Your task to perform on an android device: turn notification dots on Image 0: 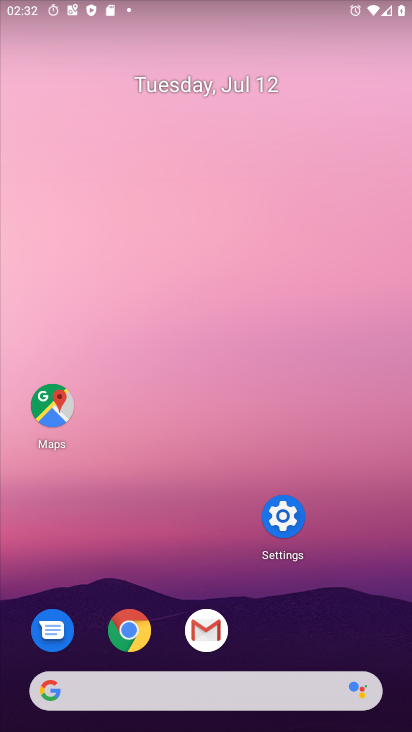
Step 0: click (291, 504)
Your task to perform on an android device: turn notification dots on Image 1: 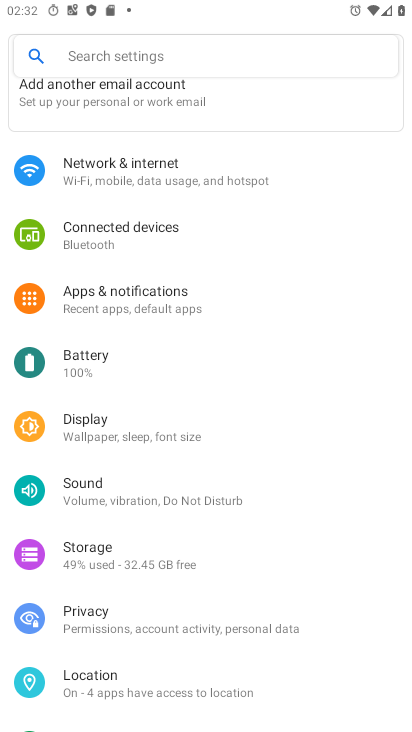
Step 1: click (200, 56)
Your task to perform on an android device: turn notification dots on Image 2: 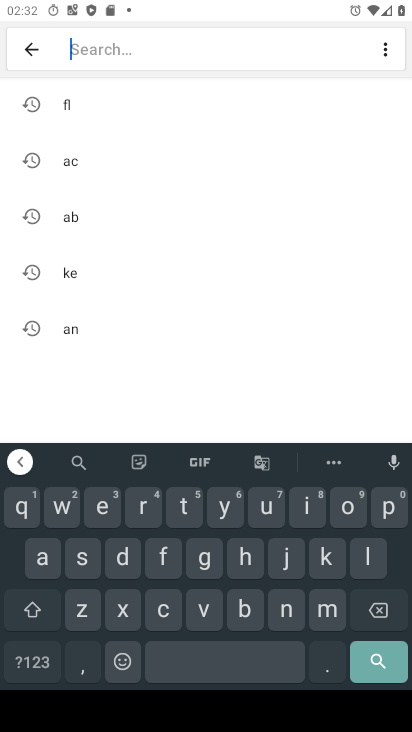
Step 2: click (118, 559)
Your task to perform on an android device: turn notification dots on Image 3: 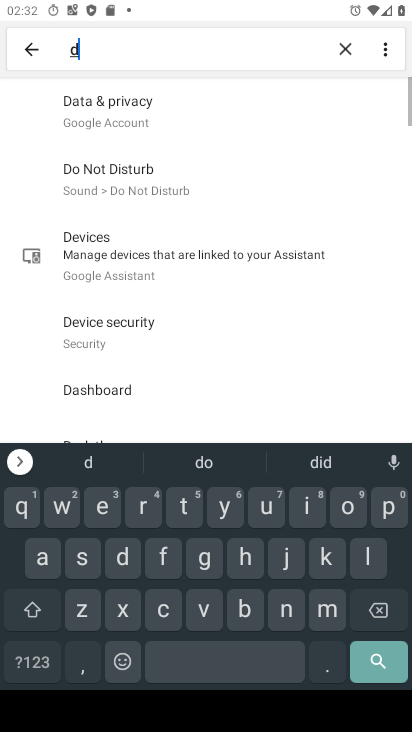
Step 3: click (353, 509)
Your task to perform on an android device: turn notification dots on Image 4: 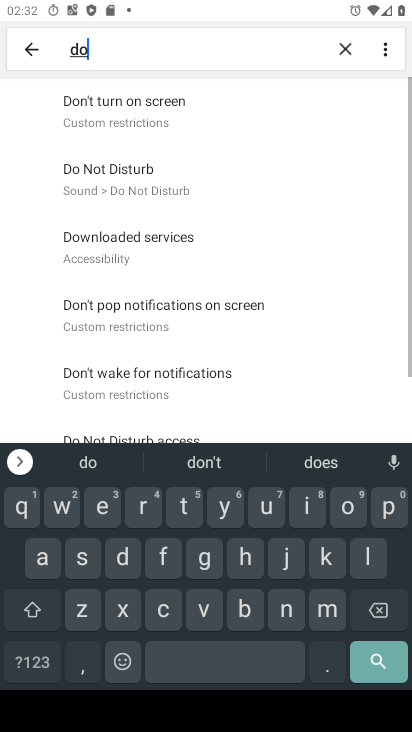
Step 4: click (189, 512)
Your task to perform on an android device: turn notification dots on Image 5: 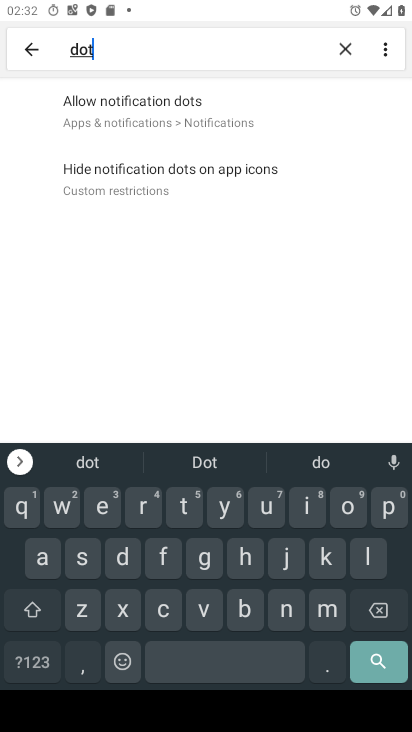
Step 5: click (141, 107)
Your task to perform on an android device: turn notification dots on Image 6: 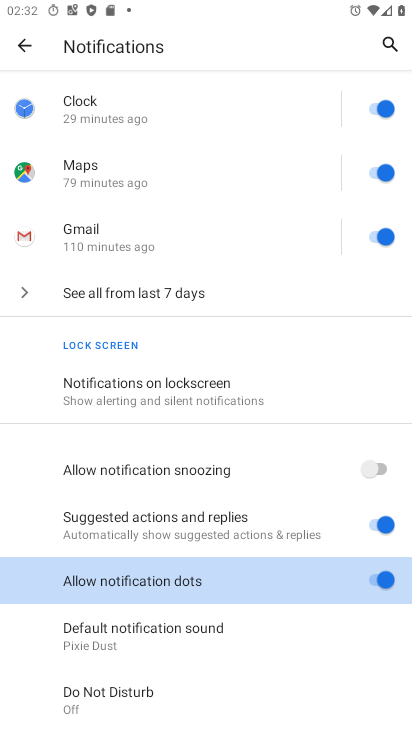
Step 6: click (311, 561)
Your task to perform on an android device: turn notification dots on Image 7: 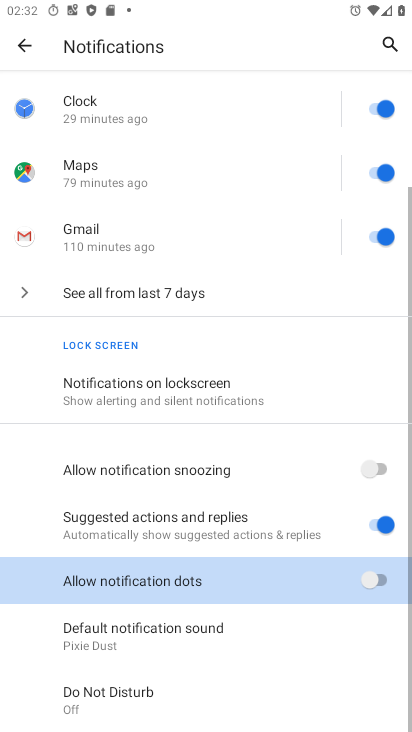
Step 7: click (306, 577)
Your task to perform on an android device: turn notification dots on Image 8: 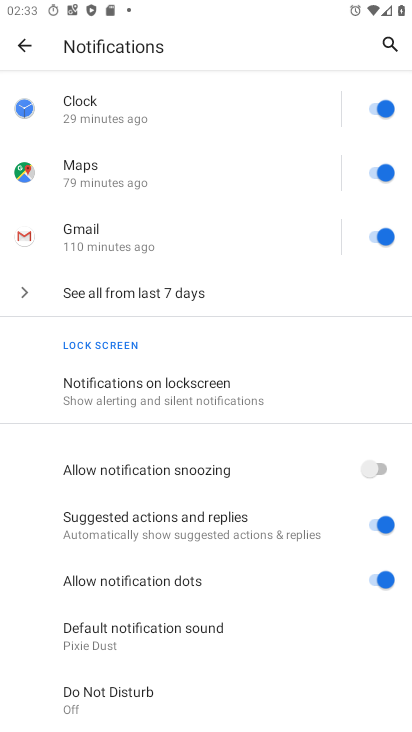
Step 8: task complete